Your task to perform on an android device: Search for Italian restaurants on Maps Image 0: 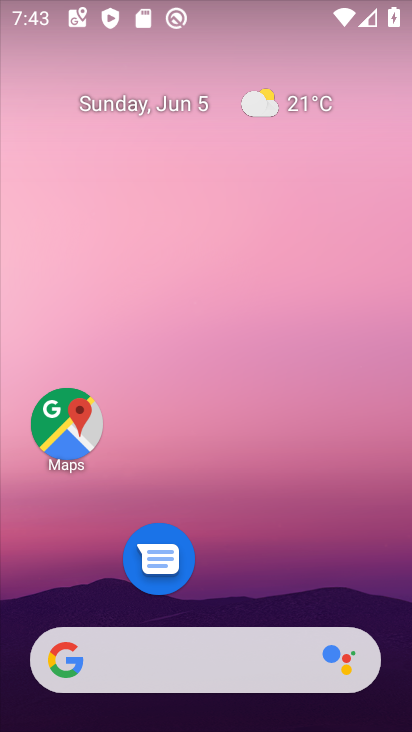
Step 0: drag from (230, 616) to (145, 0)
Your task to perform on an android device: Search for Italian restaurants on Maps Image 1: 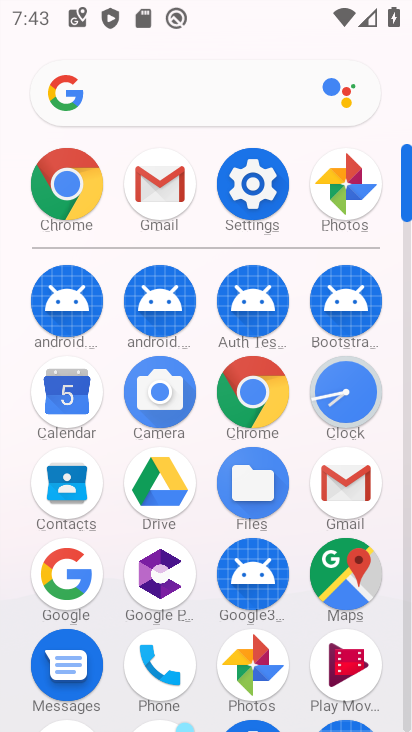
Step 1: click (332, 577)
Your task to perform on an android device: Search for Italian restaurants on Maps Image 2: 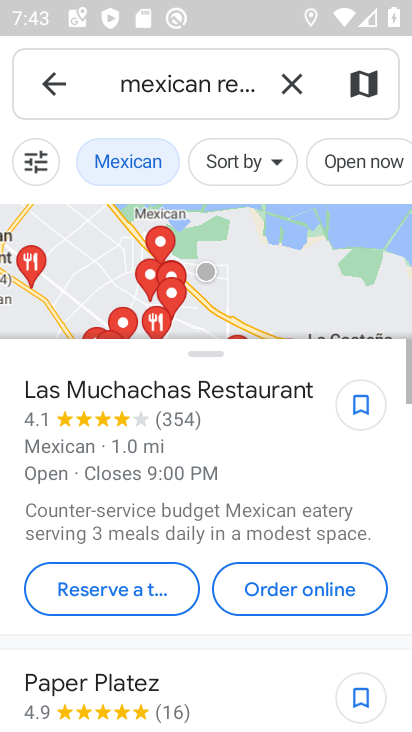
Step 2: click (272, 80)
Your task to perform on an android device: Search for Italian restaurants on Maps Image 3: 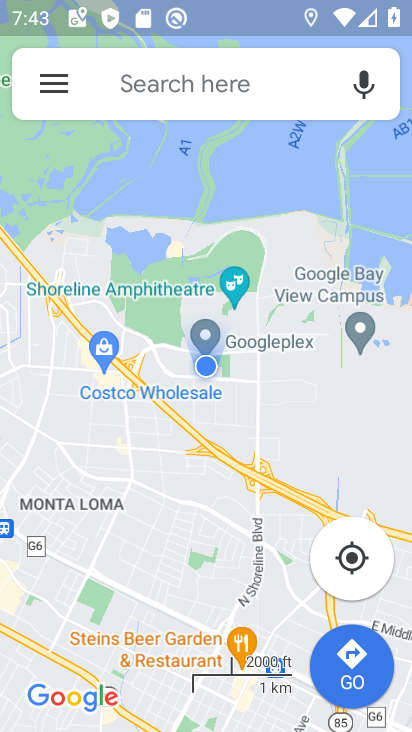
Step 3: click (163, 87)
Your task to perform on an android device: Search for Italian restaurants on Maps Image 4: 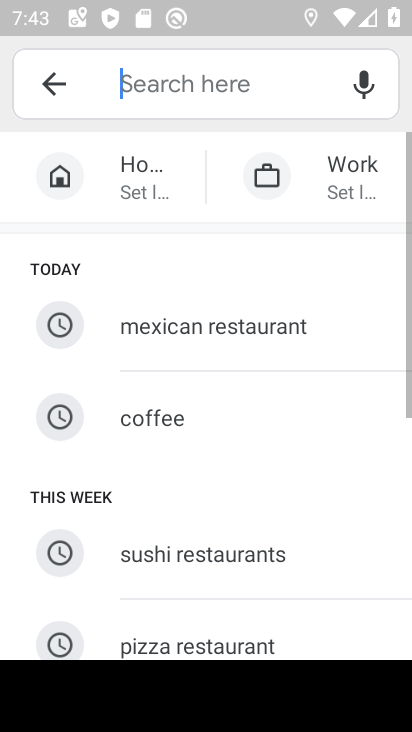
Step 4: drag from (243, 538) to (208, 138)
Your task to perform on an android device: Search for Italian restaurants on Maps Image 5: 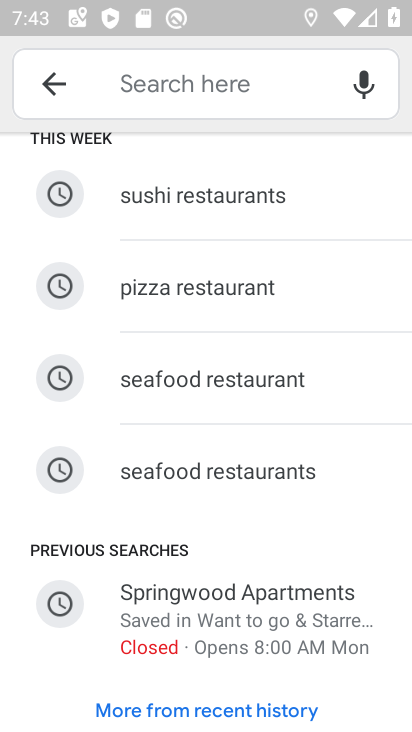
Step 5: click (166, 97)
Your task to perform on an android device: Search for Italian restaurants on Maps Image 6: 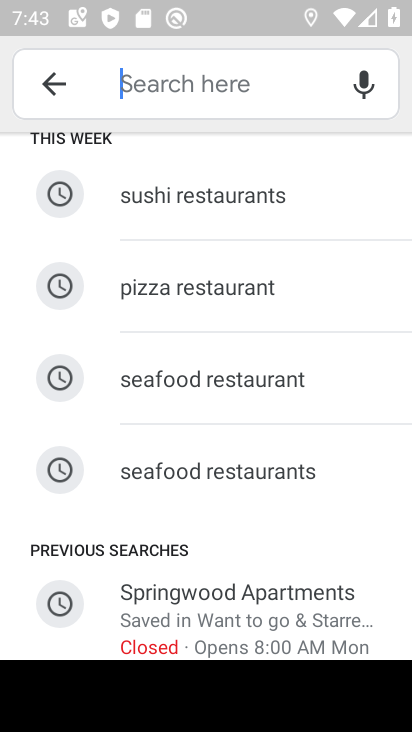
Step 6: type "italian"
Your task to perform on an android device: Search for Italian restaurants on Maps Image 7: 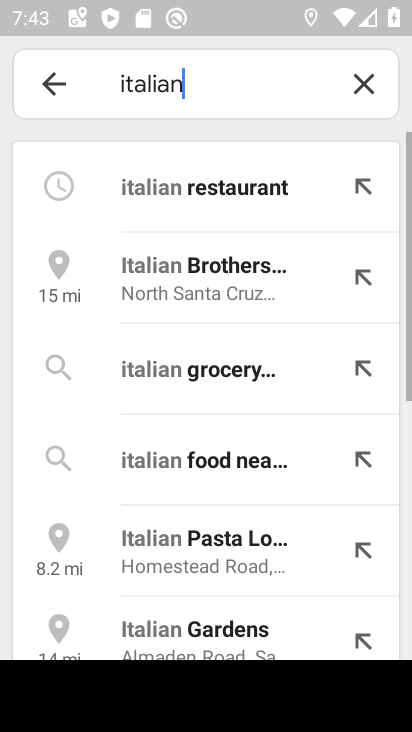
Step 7: click (207, 192)
Your task to perform on an android device: Search for Italian restaurants on Maps Image 8: 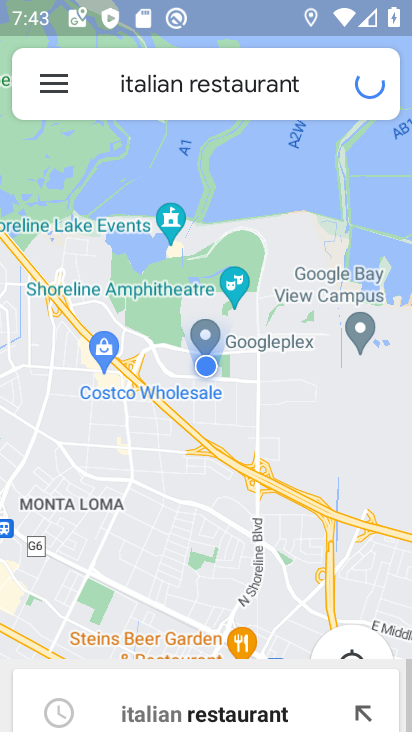
Step 8: task complete